Your task to perform on an android device: turn off picture-in-picture Image 0: 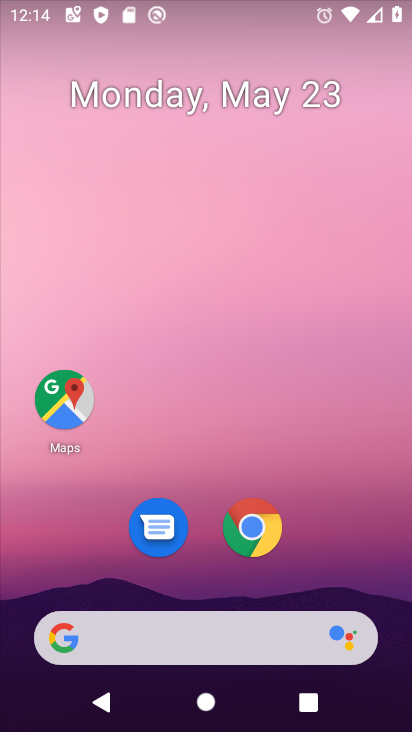
Step 0: drag from (356, 580) to (298, 280)
Your task to perform on an android device: turn off picture-in-picture Image 1: 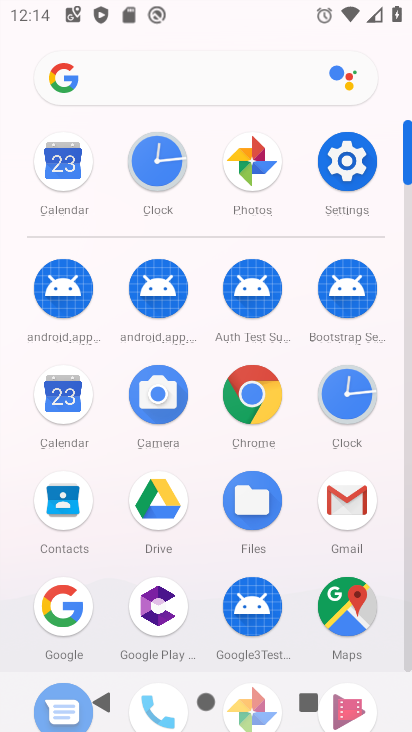
Step 1: click (338, 198)
Your task to perform on an android device: turn off picture-in-picture Image 2: 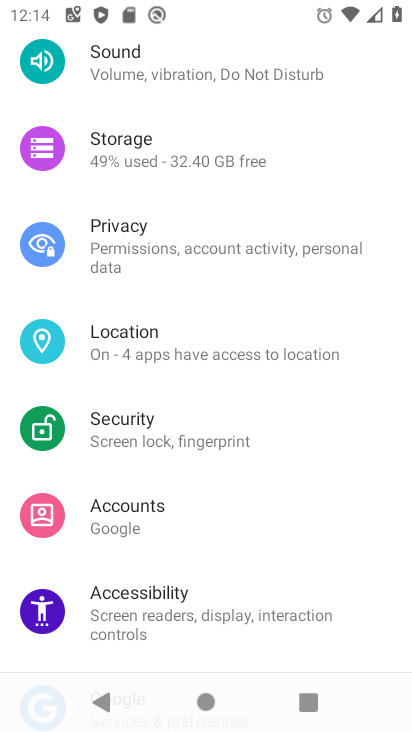
Step 2: drag from (227, 206) to (218, 343)
Your task to perform on an android device: turn off picture-in-picture Image 3: 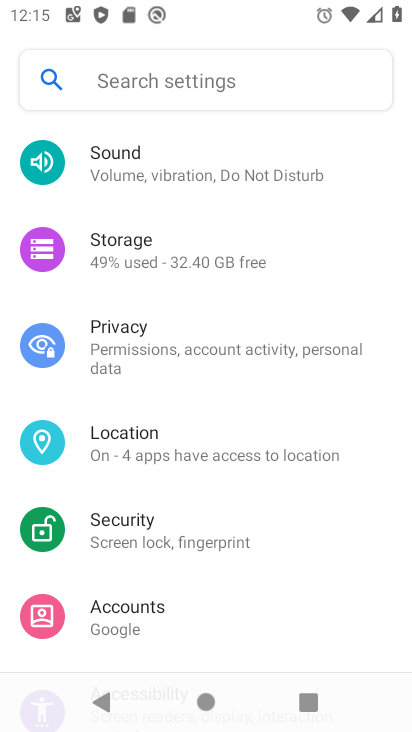
Step 3: drag from (202, 184) to (216, 255)
Your task to perform on an android device: turn off picture-in-picture Image 4: 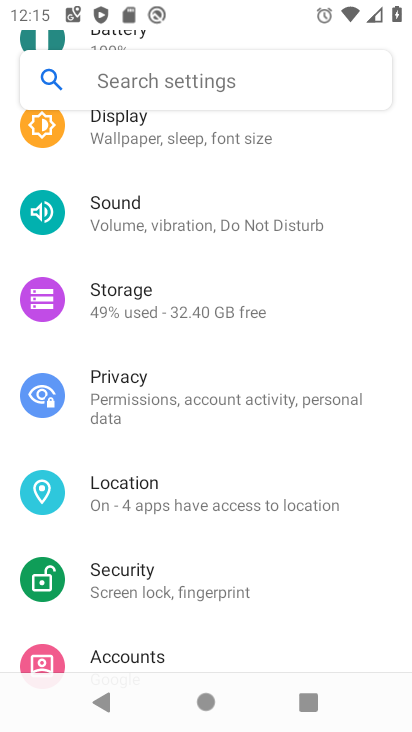
Step 4: drag from (201, 147) to (184, 385)
Your task to perform on an android device: turn off picture-in-picture Image 5: 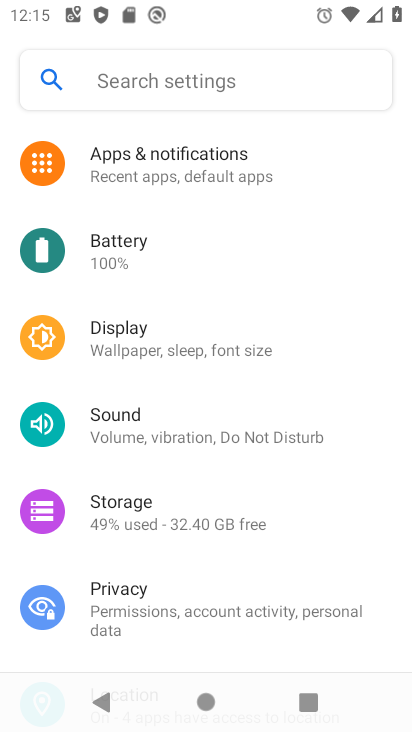
Step 5: click (184, 170)
Your task to perform on an android device: turn off picture-in-picture Image 6: 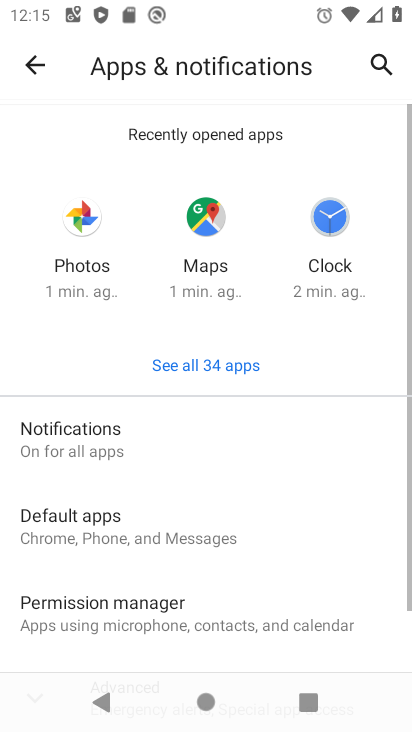
Step 6: drag from (218, 456) to (203, 343)
Your task to perform on an android device: turn off picture-in-picture Image 7: 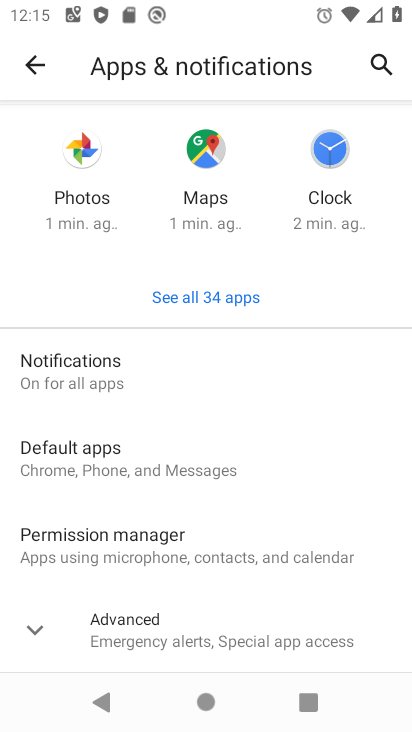
Step 7: click (155, 599)
Your task to perform on an android device: turn off picture-in-picture Image 8: 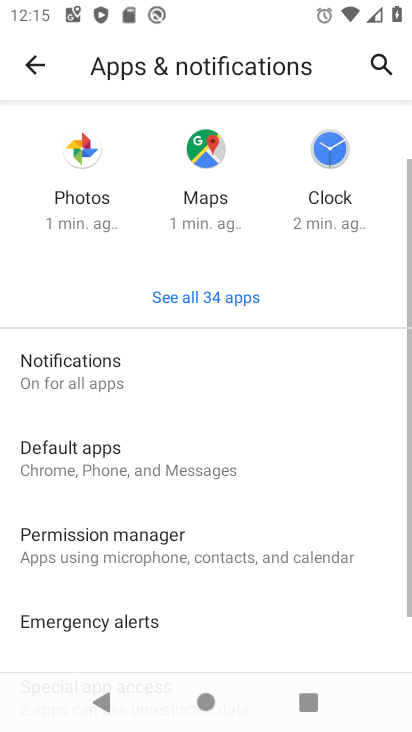
Step 8: click (167, 372)
Your task to perform on an android device: turn off picture-in-picture Image 9: 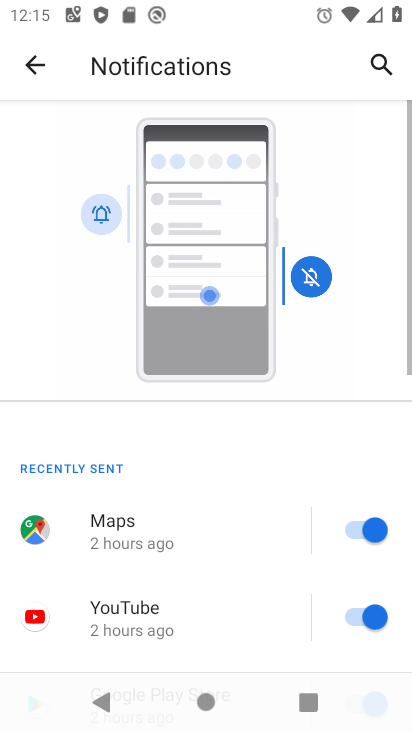
Step 9: drag from (199, 729) to (184, 501)
Your task to perform on an android device: turn off picture-in-picture Image 10: 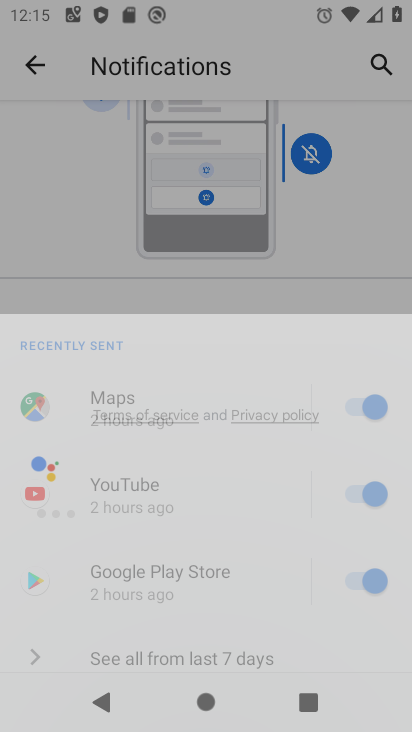
Step 10: drag from (173, 547) to (143, 313)
Your task to perform on an android device: turn off picture-in-picture Image 11: 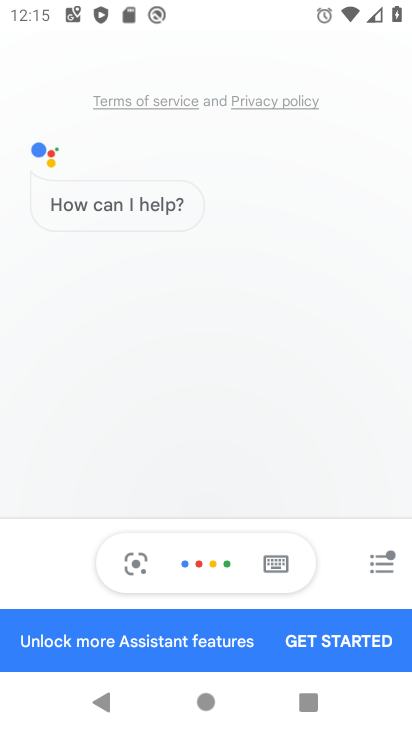
Step 11: click (108, 710)
Your task to perform on an android device: turn off picture-in-picture Image 12: 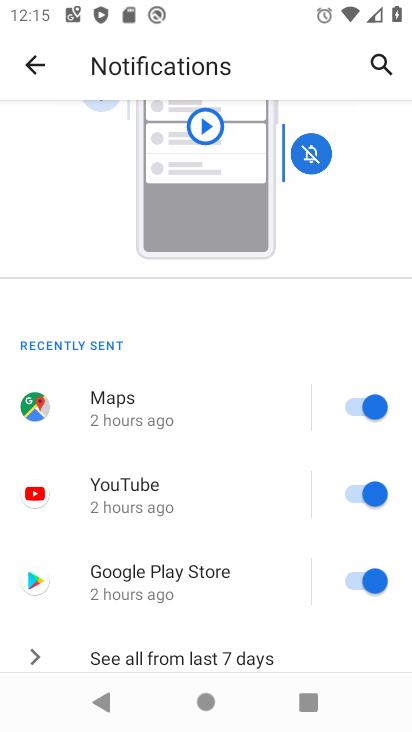
Step 12: drag from (191, 619) to (185, 410)
Your task to perform on an android device: turn off picture-in-picture Image 13: 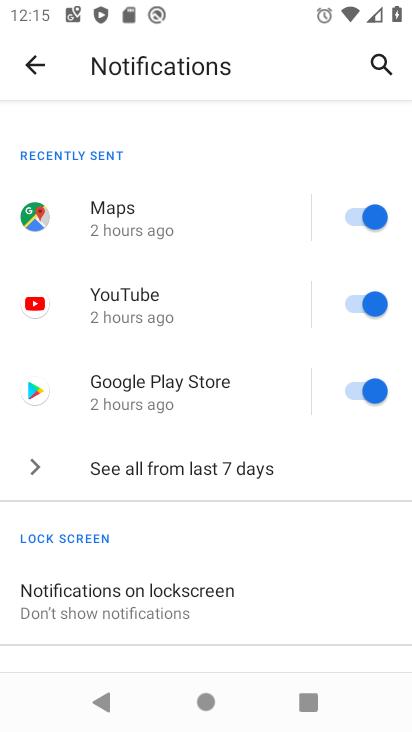
Step 13: drag from (210, 584) to (185, 350)
Your task to perform on an android device: turn off picture-in-picture Image 14: 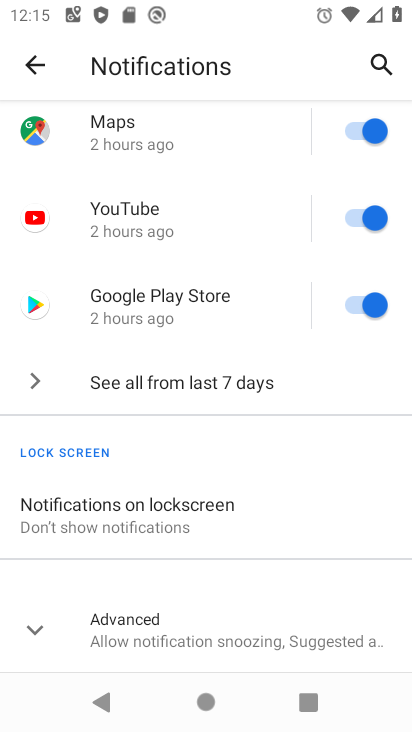
Step 14: click (194, 586)
Your task to perform on an android device: turn off picture-in-picture Image 15: 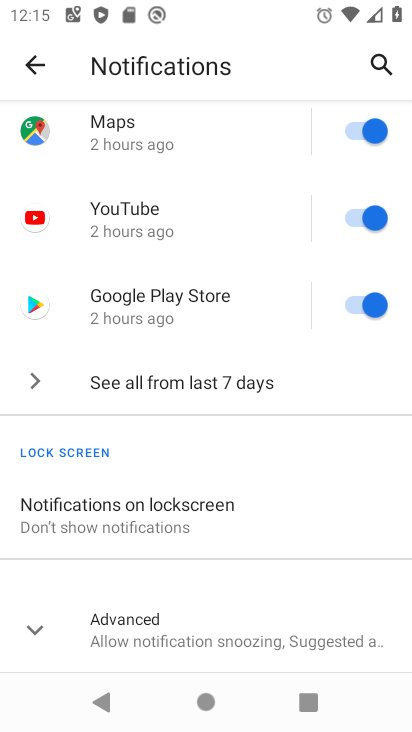
Step 15: task complete